Your task to perform on an android device: turn on the 24-hour format for clock Image 0: 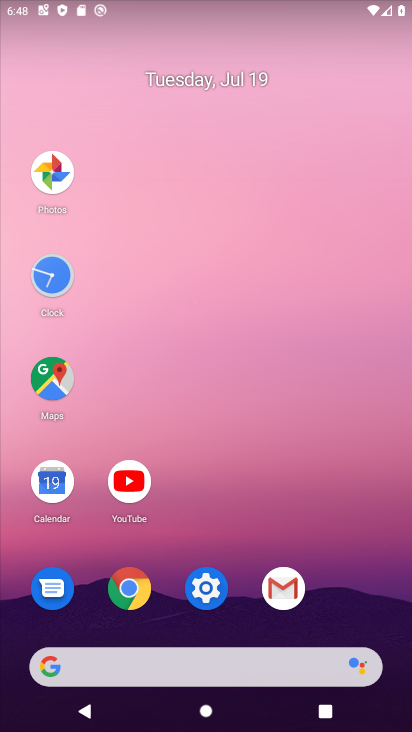
Step 0: click (49, 280)
Your task to perform on an android device: turn on the 24-hour format for clock Image 1: 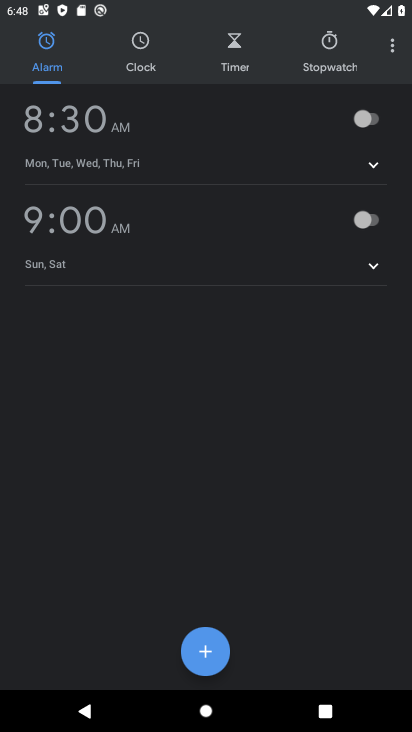
Step 1: click (395, 45)
Your task to perform on an android device: turn on the 24-hour format for clock Image 2: 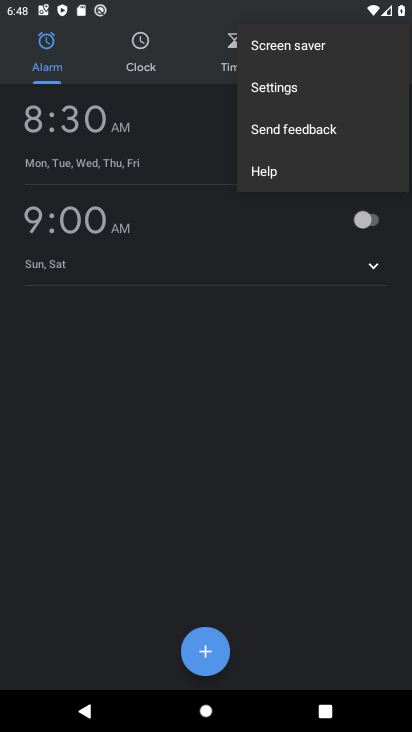
Step 2: click (276, 89)
Your task to perform on an android device: turn on the 24-hour format for clock Image 3: 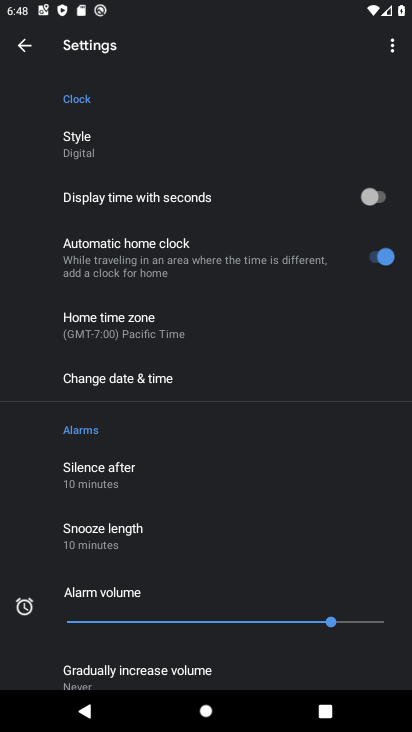
Step 3: click (121, 379)
Your task to perform on an android device: turn on the 24-hour format for clock Image 4: 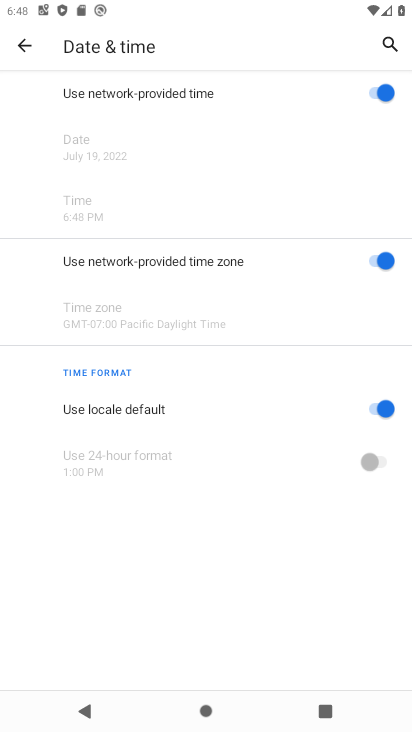
Step 4: click (388, 411)
Your task to perform on an android device: turn on the 24-hour format for clock Image 5: 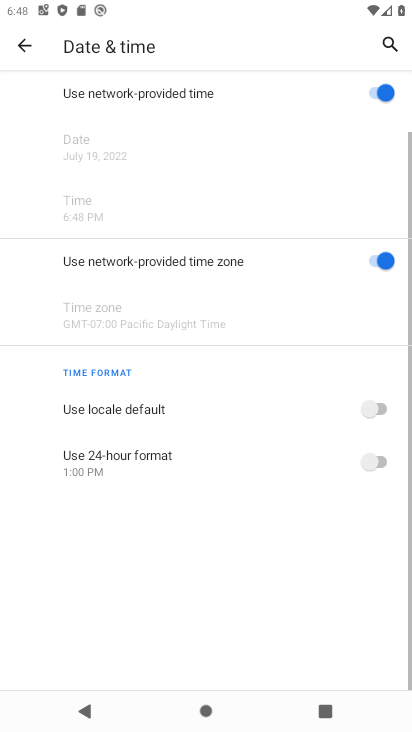
Step 5: click (372, 460)
Your task to perform on an android device: turn on the 24-hour format for clock Image 6: 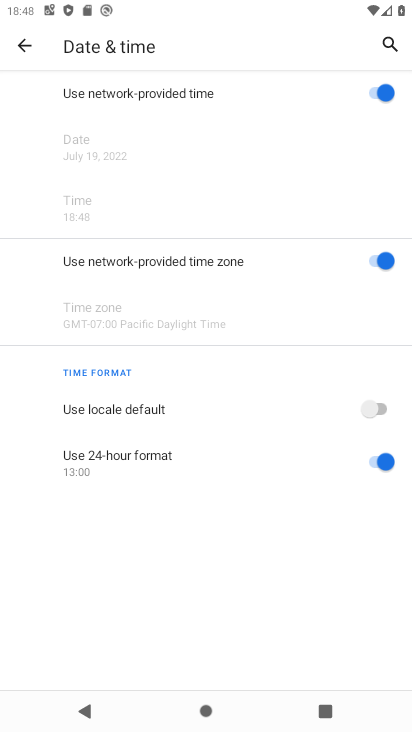
Step 6: task complete